Your task to perform on an android device: Check the weather Image 0: 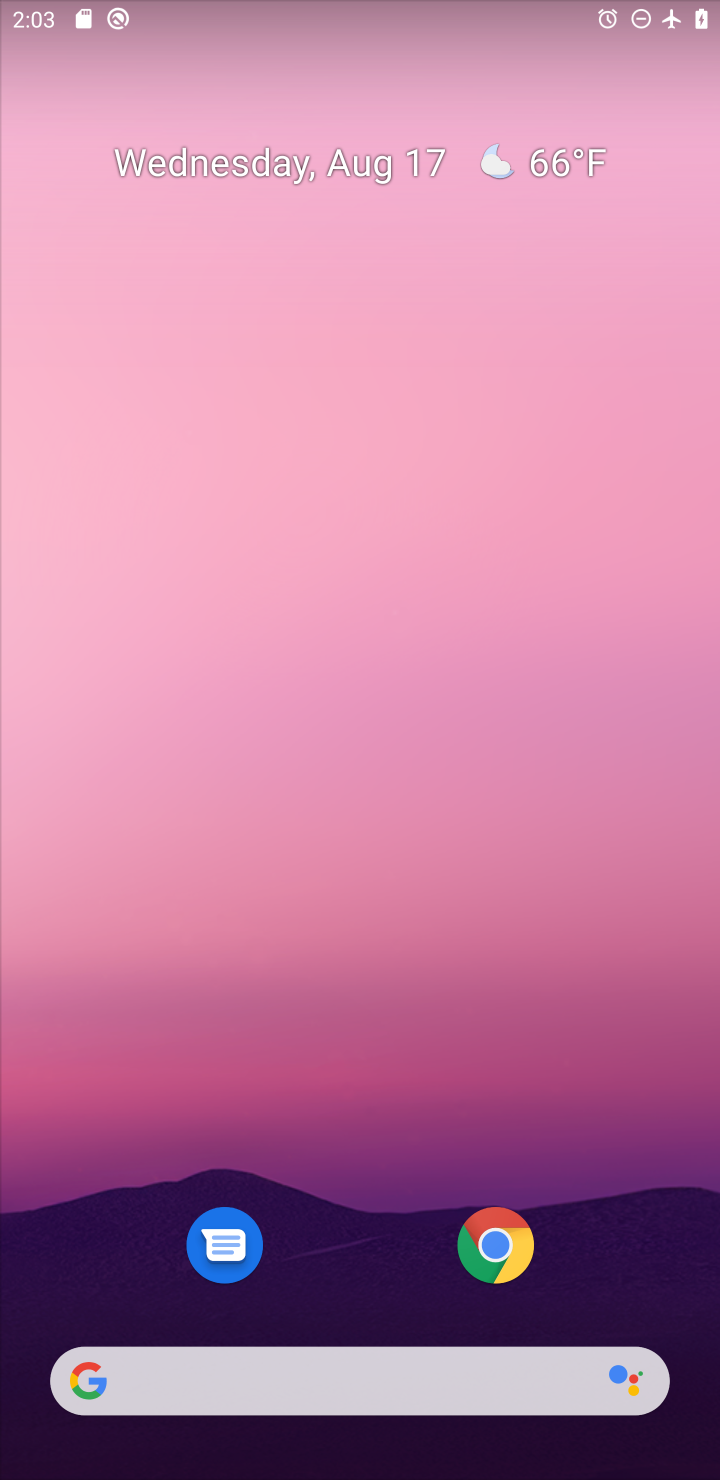
Step 0: drag from (259, 342) to (256, 241)
Your task to perform on an android device: Check the weather Image 1: 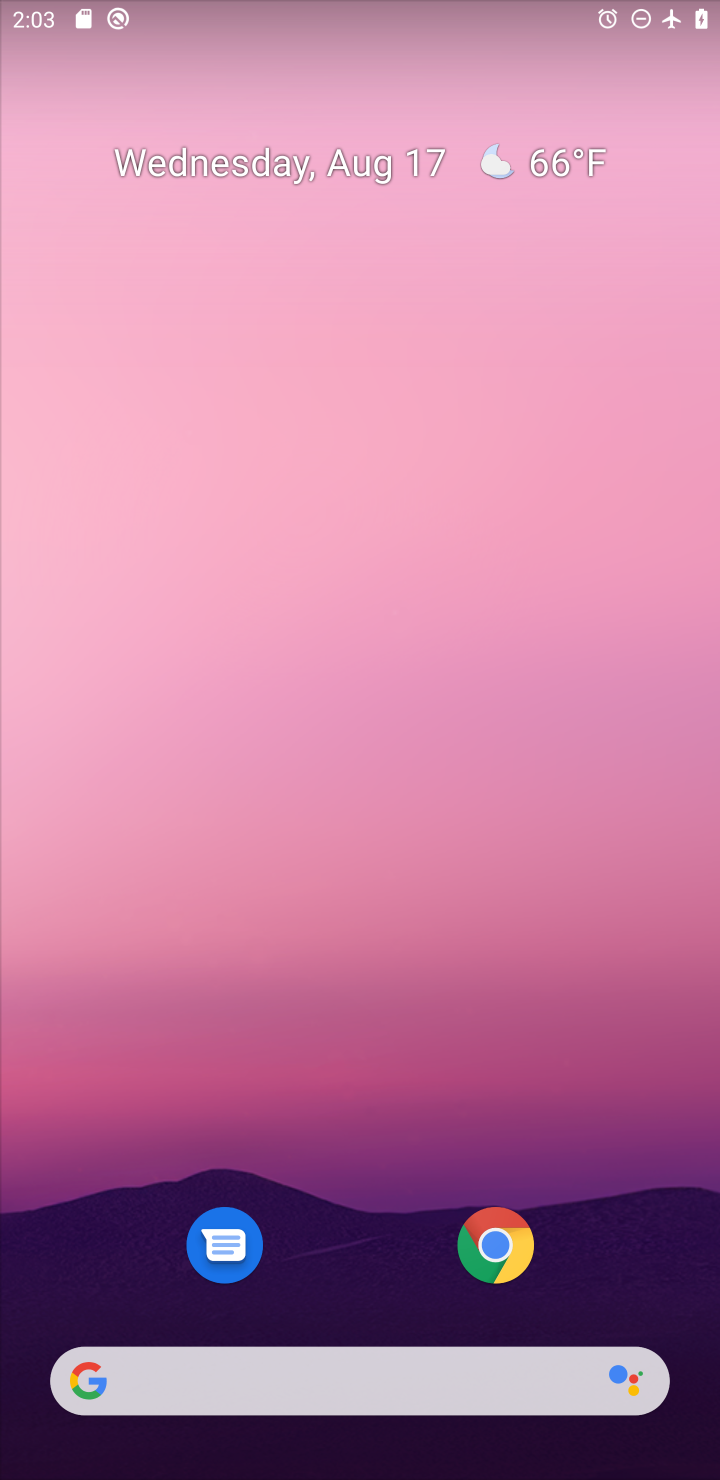
Step 1: click (486, 157)
Your task to perform on an android device: Check the weather Image 2: 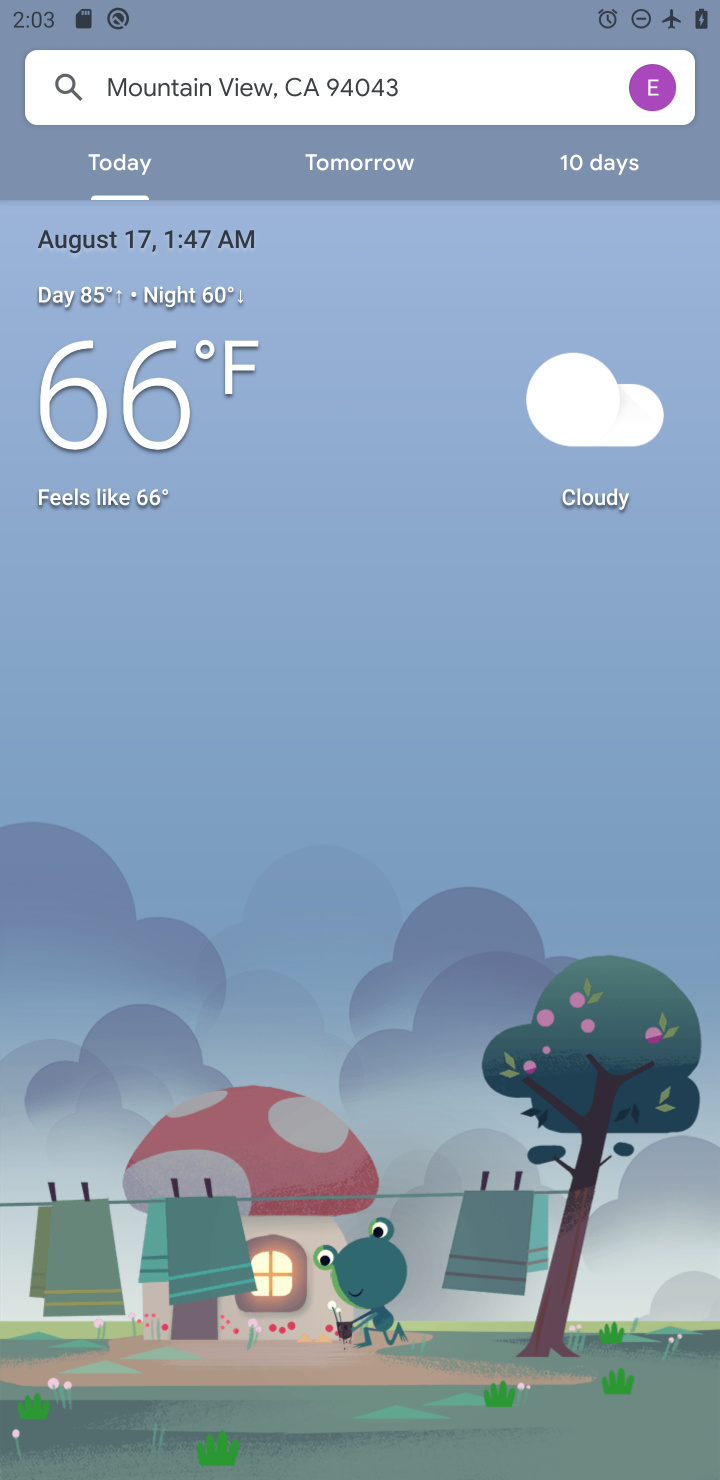
Step 2: task complete